Your task to perform on an android device: check the backup settings in the google photos Image 0: 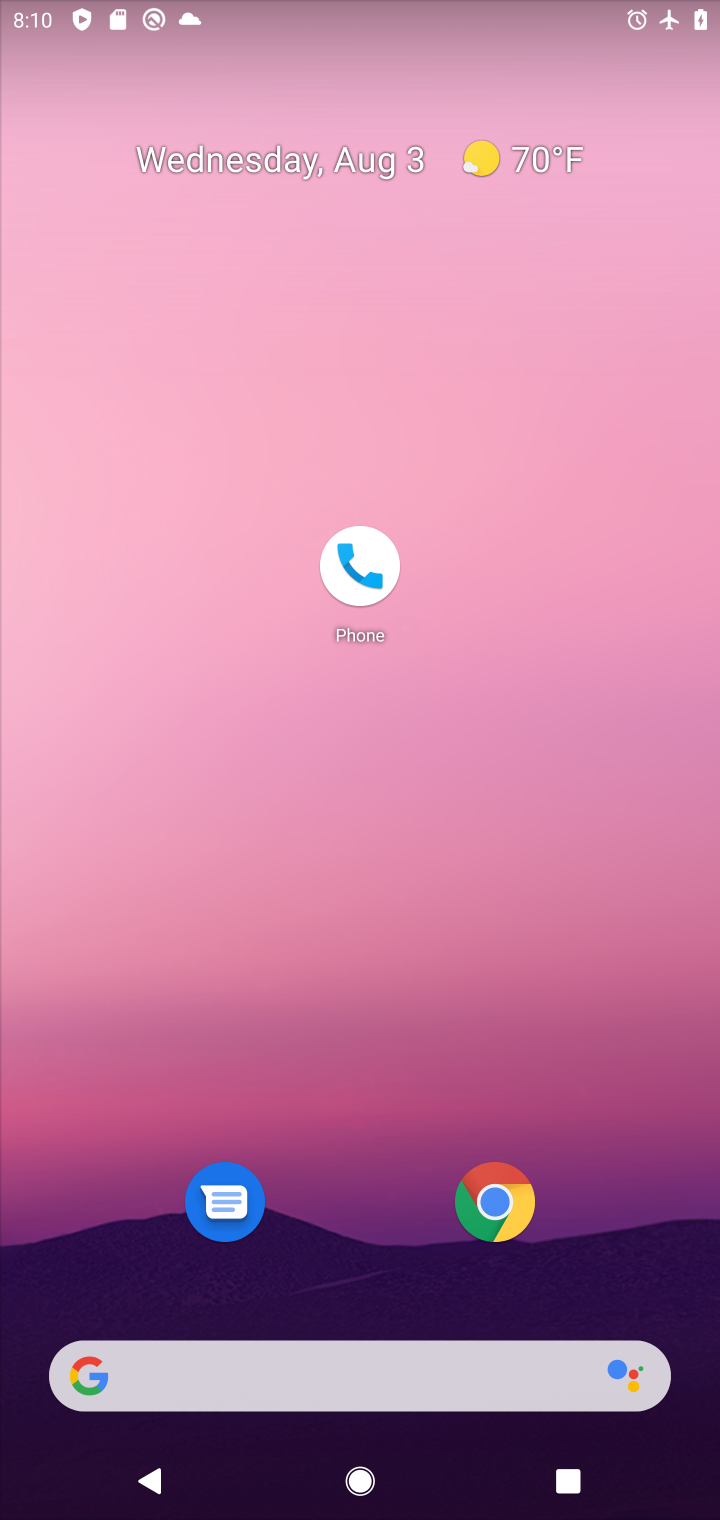
Step 0: drag from (300, 1383) to (718, 291)
Your task to perform on an android device: check the backup settings in the google photos Image 1: 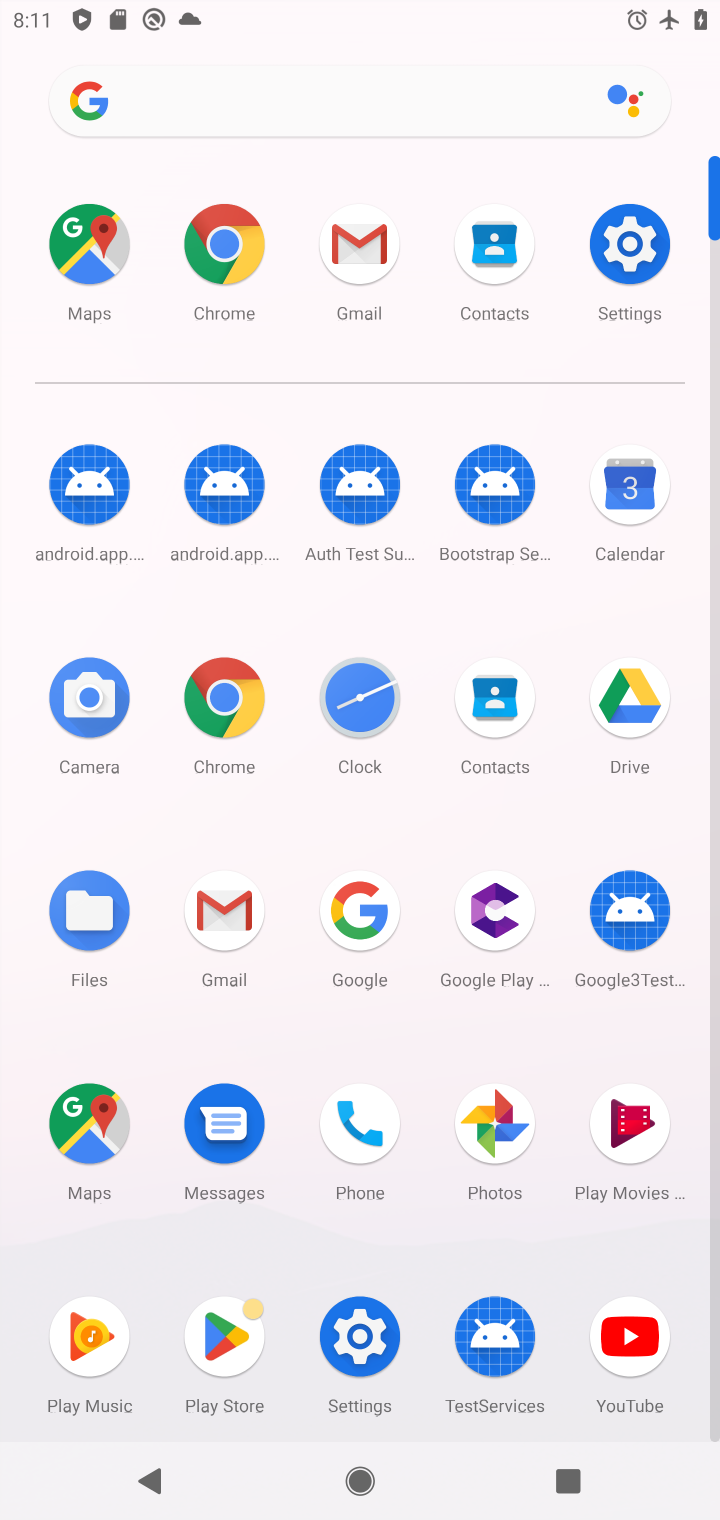
Step 1: click (496, 1120)
Your task to perform on an android device: check the backup settings in the google photos Image 2: 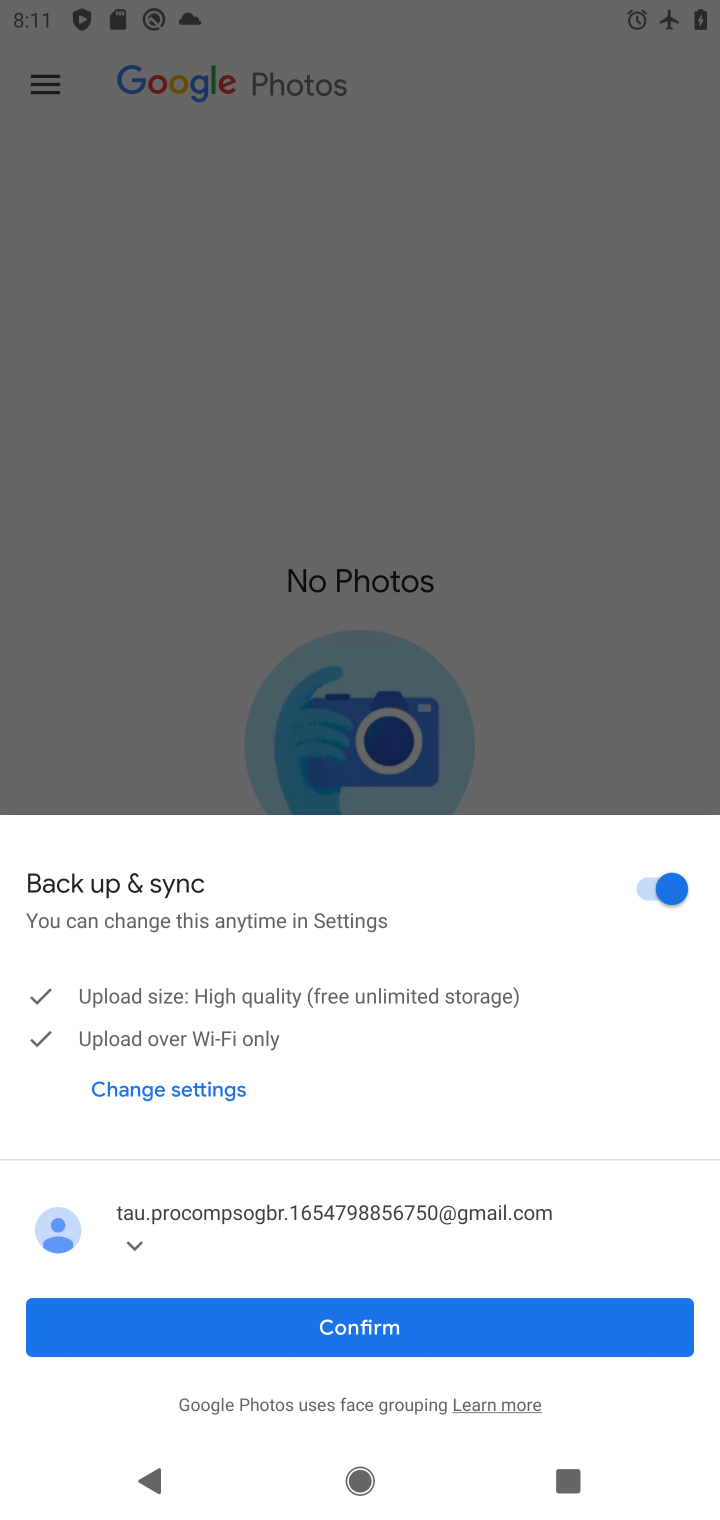
Step 2: click (375, 1324)
Your task to perform on an android device: check the backup settings in the google photos Image 3: 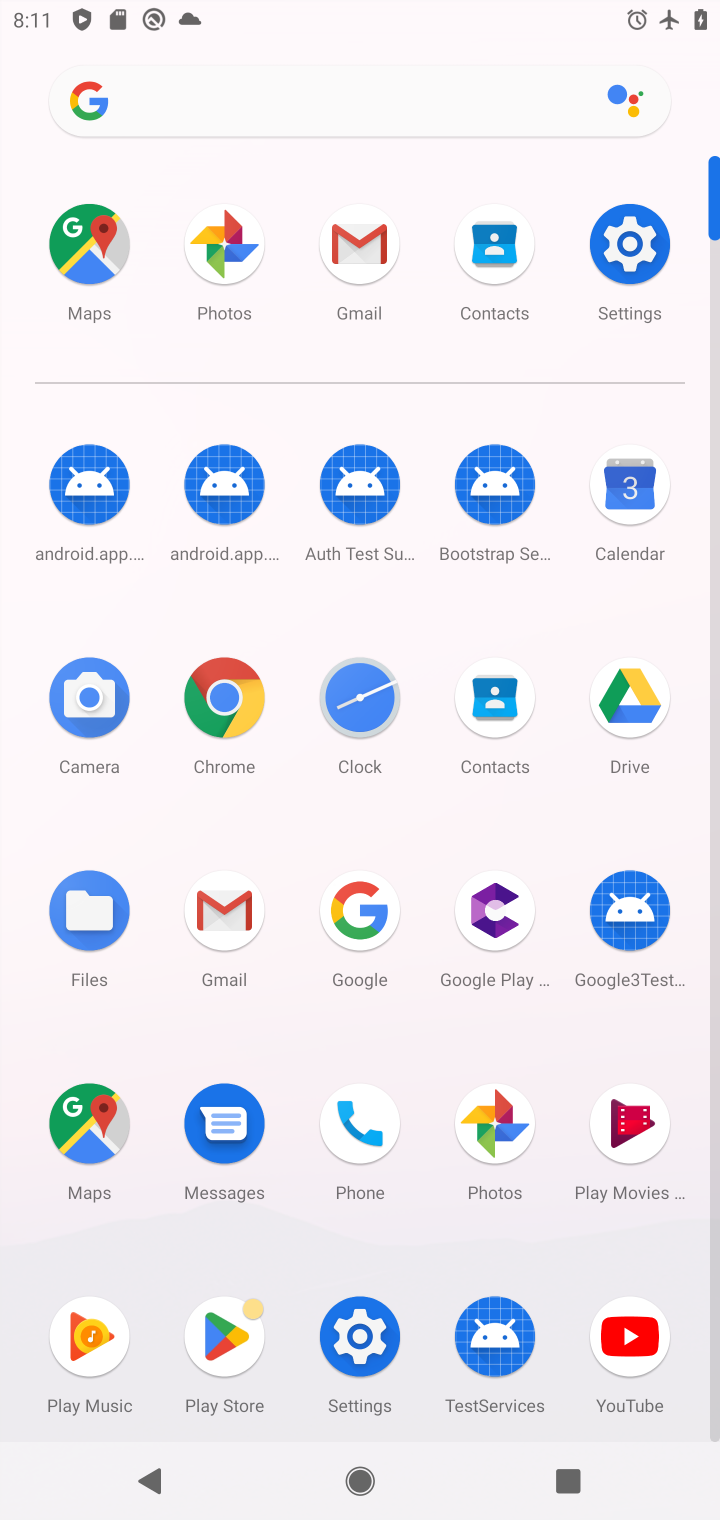
Step 3: click (497, 1131)
Your task to perform on an android device: check the backup settings in the google photos Image 4: 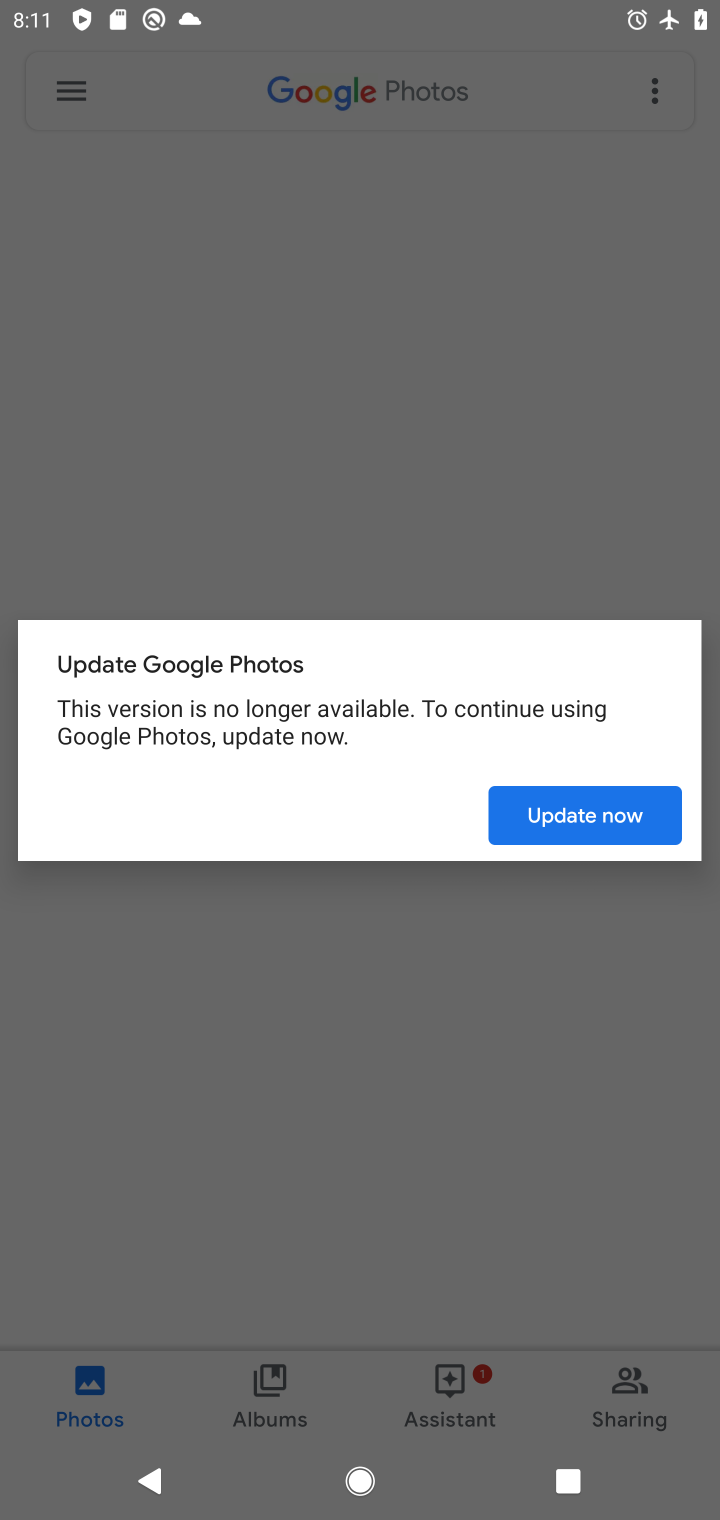
Step 4: click (562, 811)
Your task to perform on an android device: check the backup settings in the google photos Image 5: 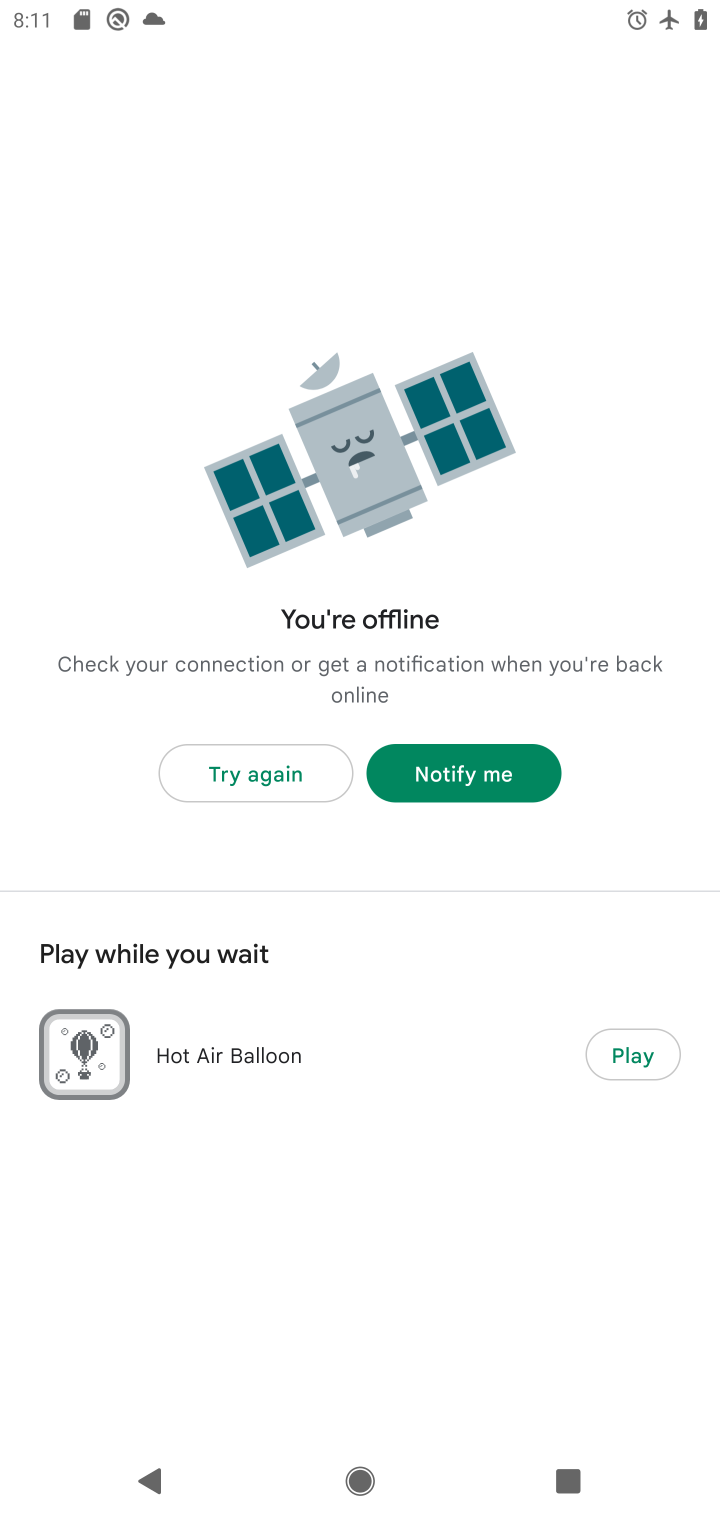
Step 5: task complete